Your task to perform on an android device: Open eBay Image 0: 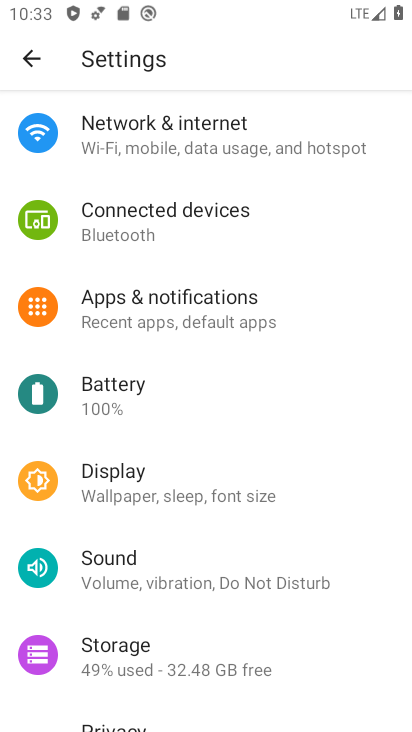
Step 0: press home button
Your task to perform on an android device: Open eBay Image 1: 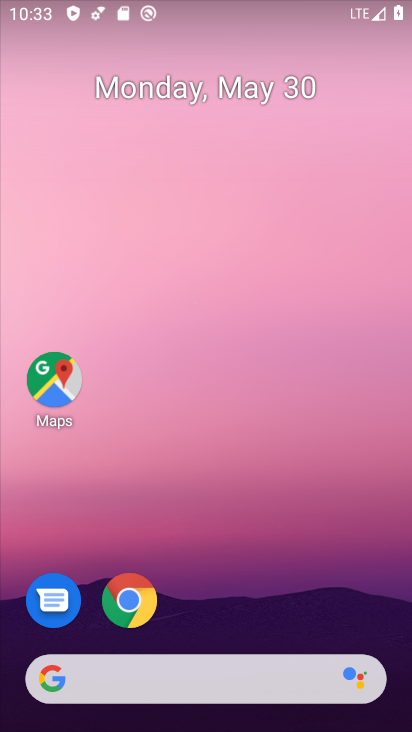
Step 1: click (118, 586)
Your task to perform on an android device: Open eBay Image 2: 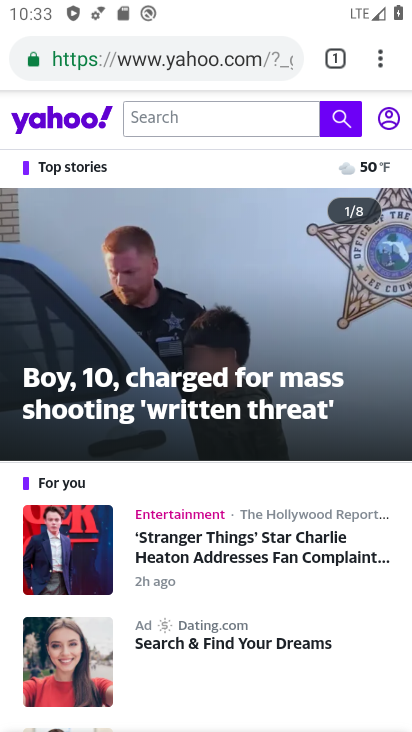
Step 2: click (113, 58)
Your task to perform on an android device: Open eBay Image 3: 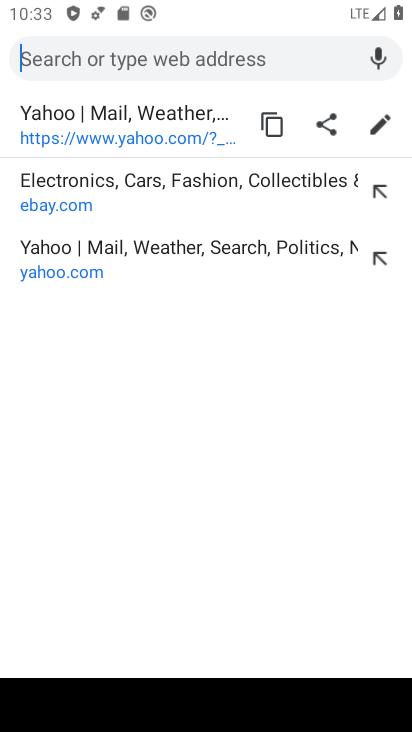
Step 3: type " eBay"
Your task to perform on an android device: Open eBay Image 4: 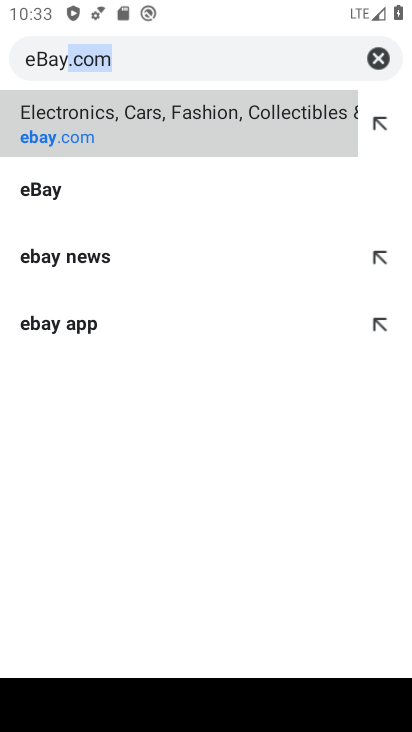
Step 4: click (50, 135)
Your task to perform on an android device: Open eBay Image 5: 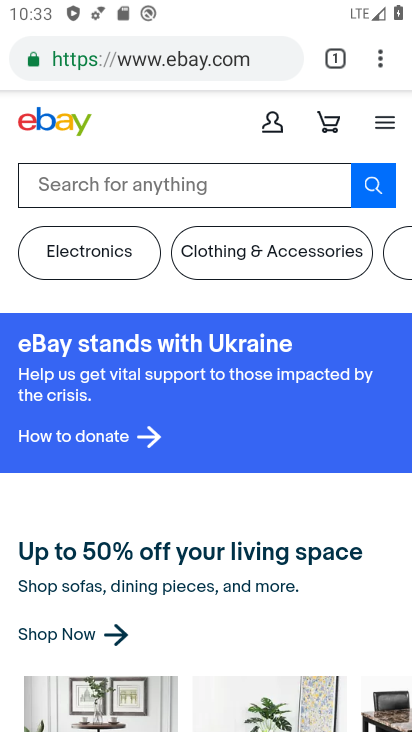
Step 5: task complete